Your task to perform on an android device: Show the shopping cart on walmart. Add usb-a to usb-b to the cart on walmart Image 0: 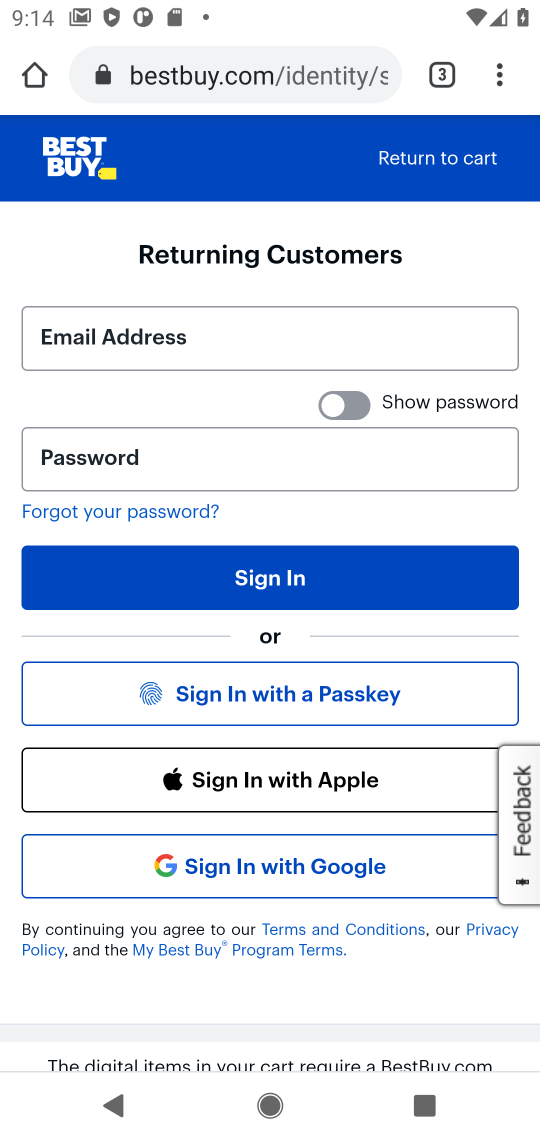
Step 0: click (252, 91)
Your task to perform on an android device: Show the shopping cart on walmart. Add usb-a to usb-b to the cart on walmart Image 1: 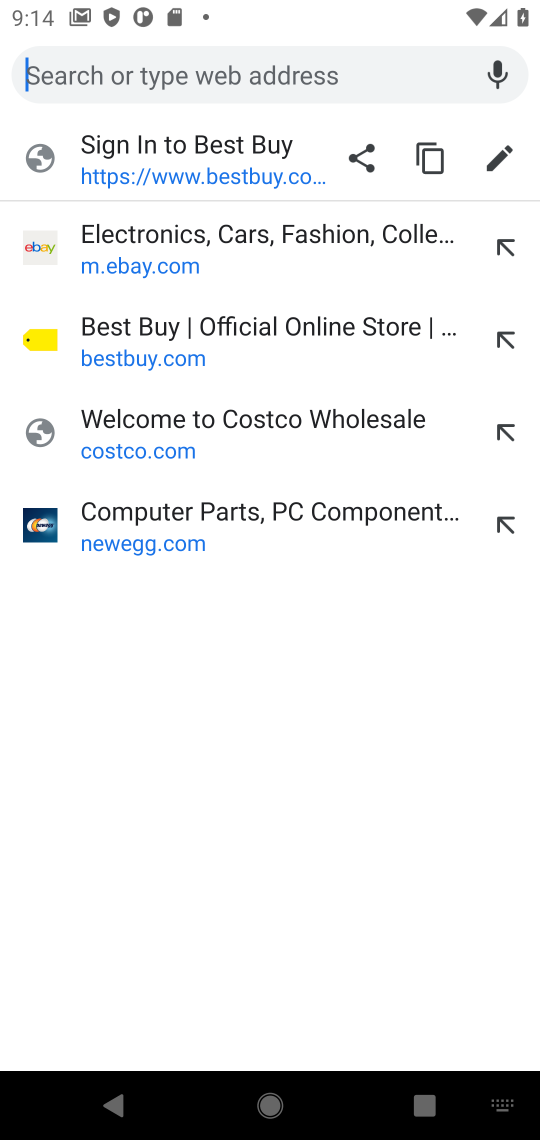
Step 1: type "walmart.com"
Your task to perform on an android device: Show the shopping cart on walmart. Add usb-a to usb-b to the cart on walmart Image 2: 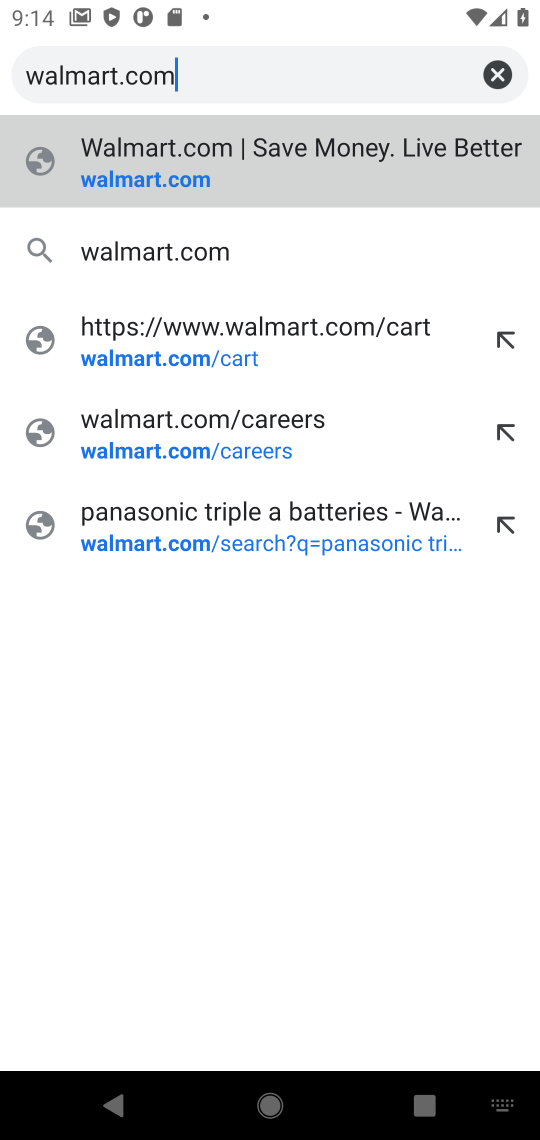
Step 2: click (134, 182)
Your task to perform on an android device: Show the shopping cart on walmart. Add usb-a to usb-b to the cart on walmart Image 3: 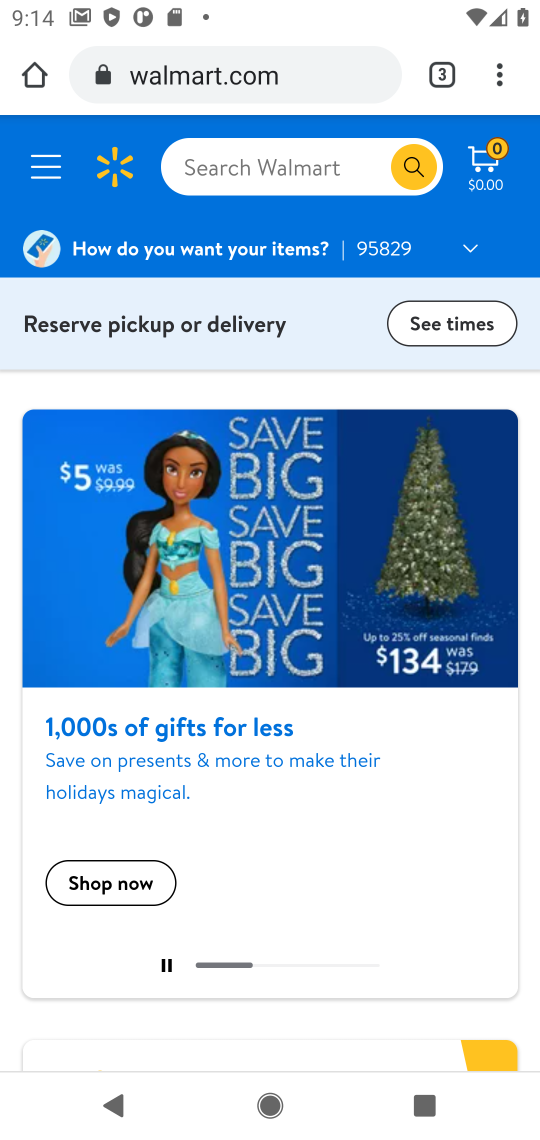
Step 3: click (469, 159)
Your task to perform on an android device: Show the shopping cart on walmart. Add usb-a to usb-b to the cart on walmart Image 4: 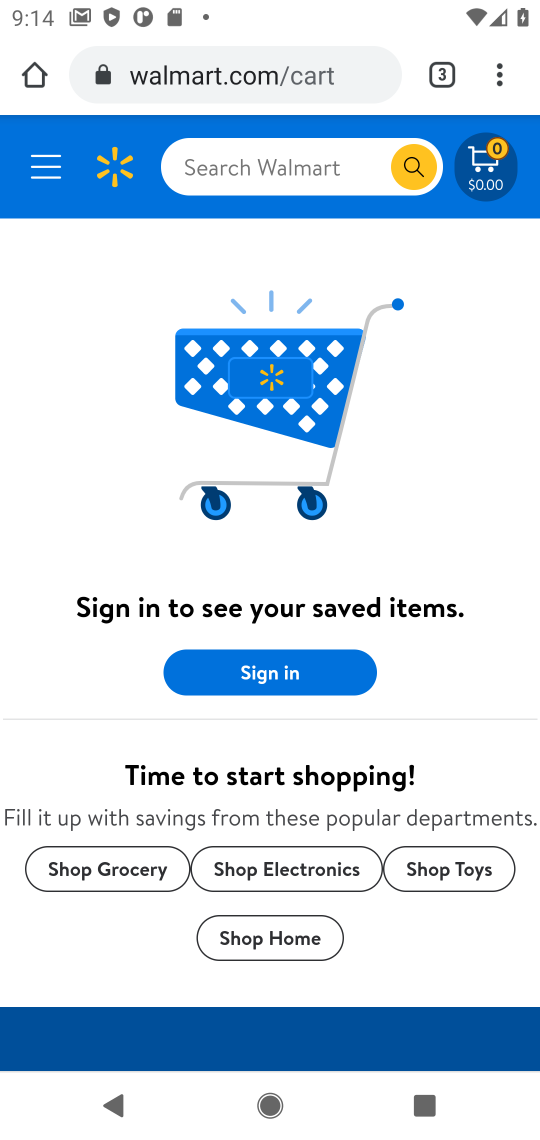
Step 4: click (228, 172)
Your task to perform on an android device: Show the shopping cart on walmart. Add usb-a to usb-b to the cart on walmart Image 5: 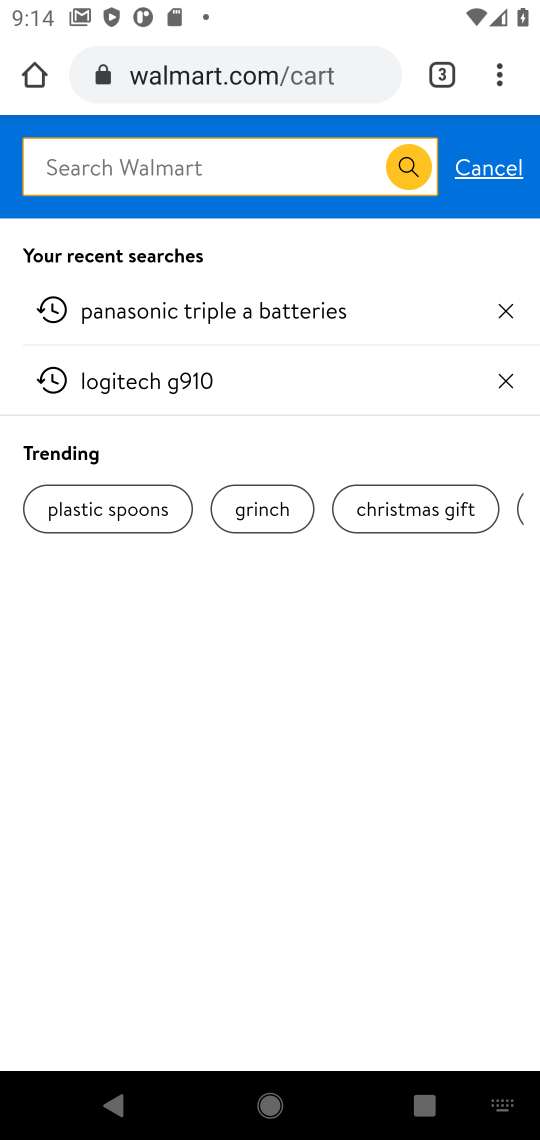
Step 5: type "usb-a to usb-b"
Your task to perform on an android device: Show the shopping cart on walmart. Add usb-a to usb-b to the cart on walmart Image 6: 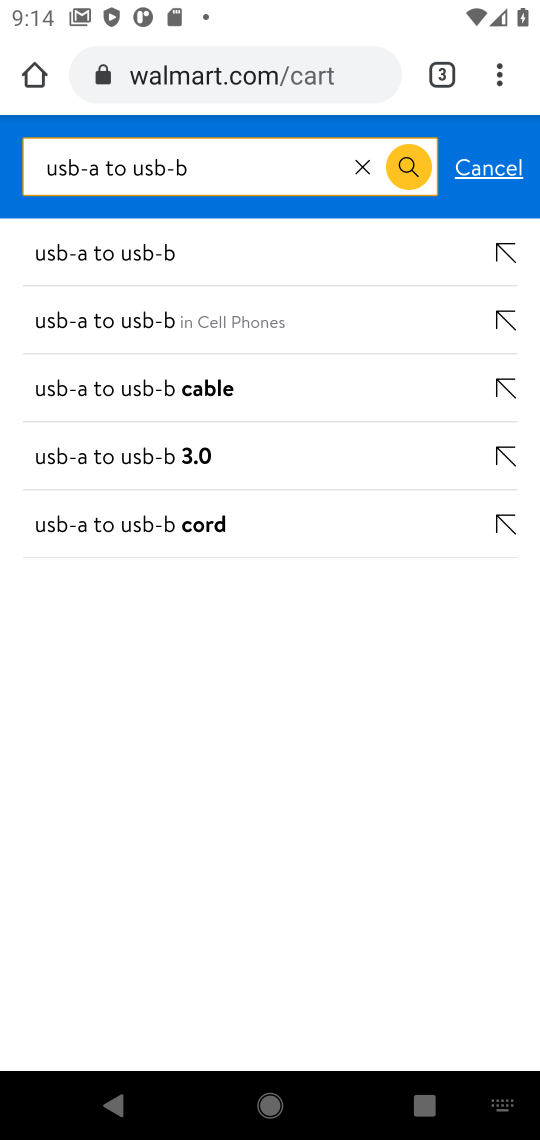
Step 6: click (135, 264)
Your task to perform on an android device: Show the shopping cart on walmart. Add usb-a to usb-b to the cart on walmart Image 7: 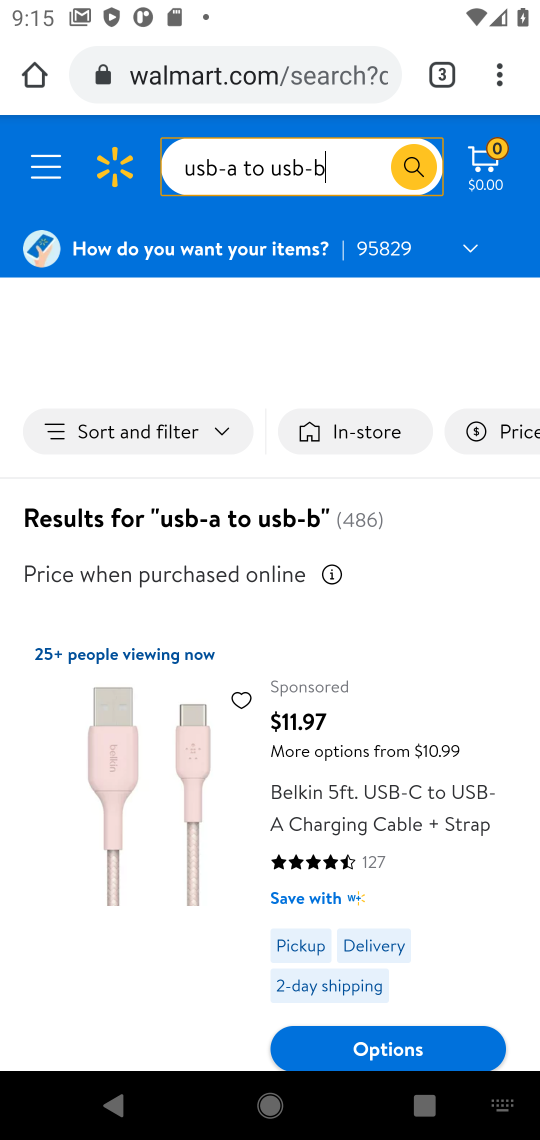
Step 7: drag from (233, 766) to (242, 535)
Your task to perform on an android device: Show the shopping cart on walmart. Add usb-a to usb-b to the cart on walmart Image 8: 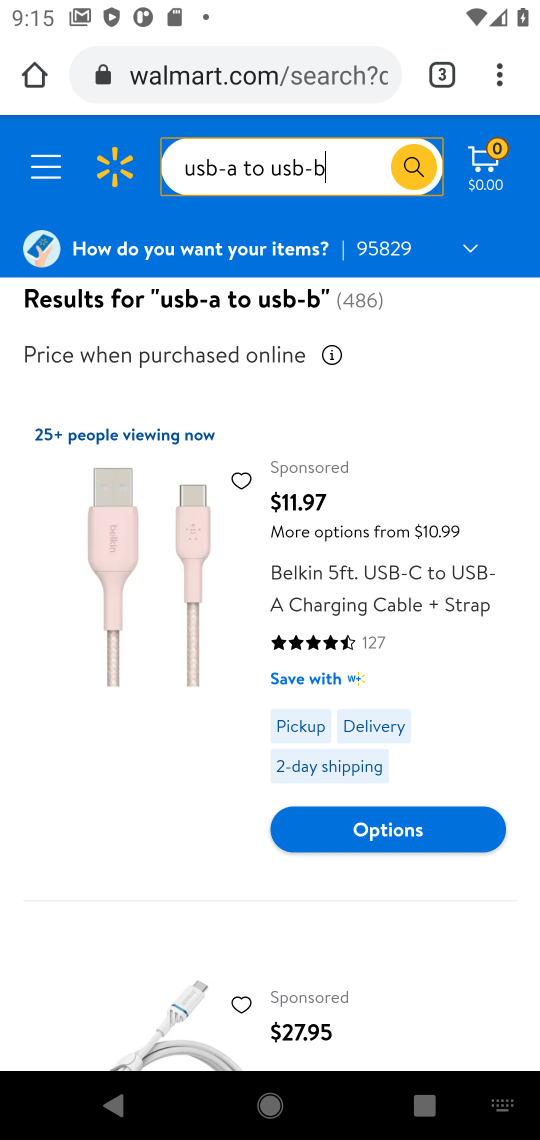
Step 8: drag from (218, 804) to (232, 443)
Your task to perform on an android device: Show the shopping cart on walmart. Add usb-a to usb-b to the cart on walmart Image 9: 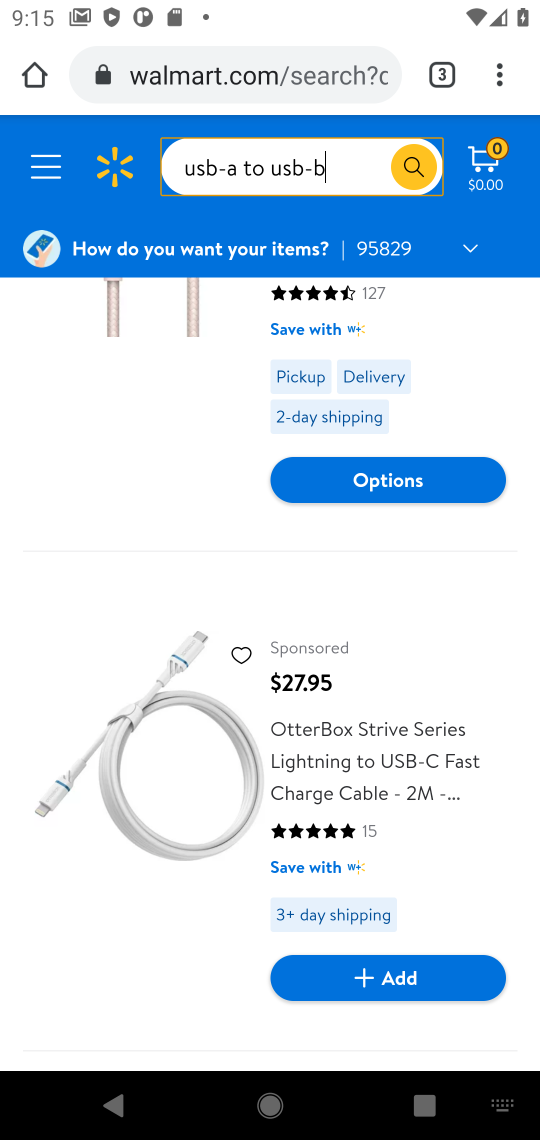
Step 9: drag from (187, 918) to (198, 378)
Your task to perform on an android device: Show the shopping cart on walmart. Add usb-a to usb-b to the cart on walmart Image 10: 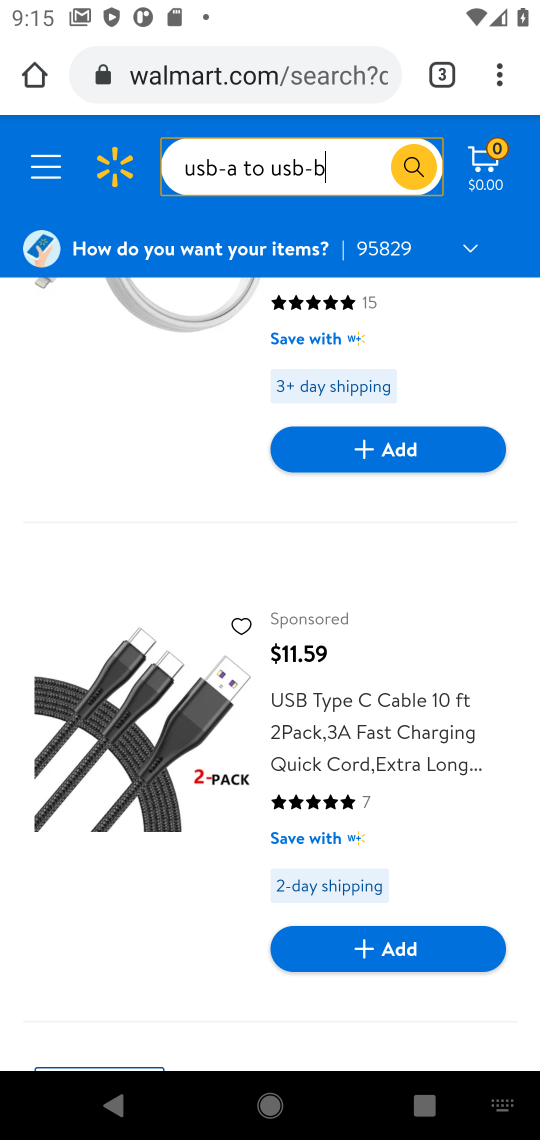
Step 10: drag from (168, 824) to (224, 395)
Your task to perform on an android device: Show the shopping cart on walmart. Add usb-a to usb-b to the cart on walmart Image 11: 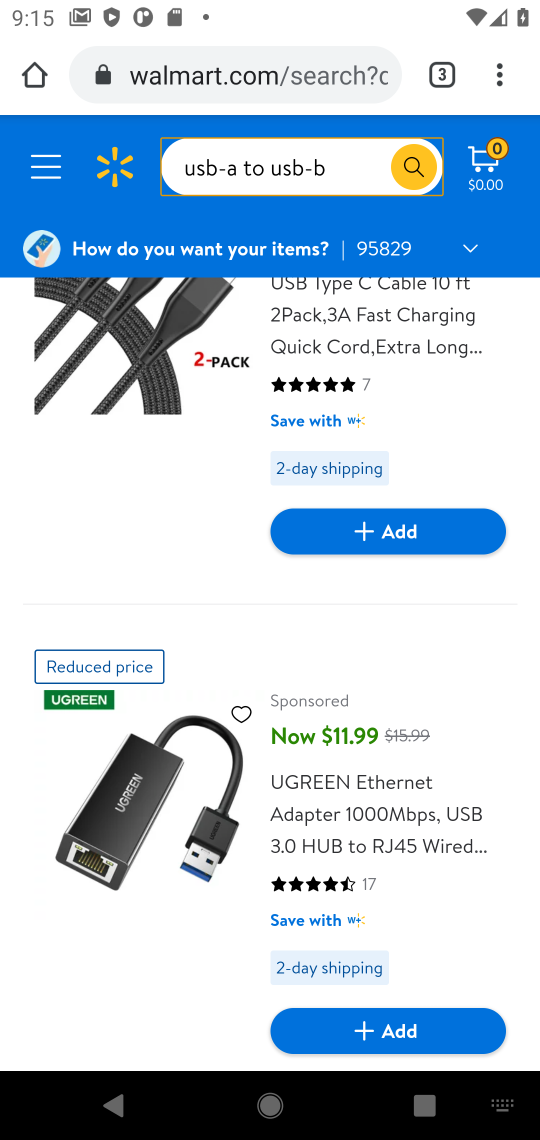
Step 11: drag from (169, 942) to (212, 480)
Your task to perform on an android device: Show the shopping cart on walmart. Add usb-a to usb-b to the cart on walmart Image 12: 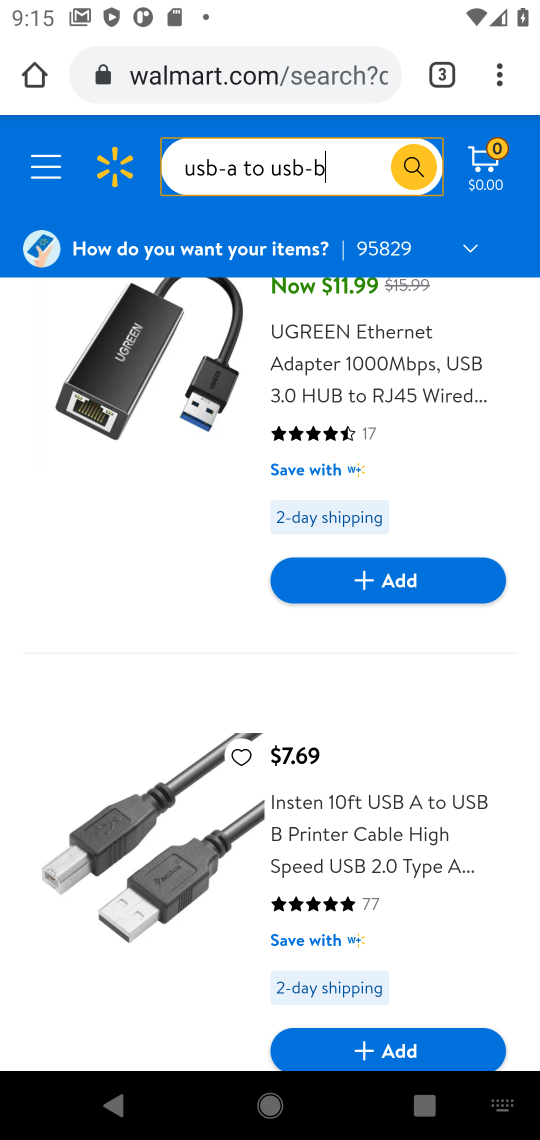
Step 12: drag from (327, 934) to (327, 768)
Your task to perform on an android device: Show the shopping cart on walmart. Add usb-a to usb-b to the cart on walmart Image 13: 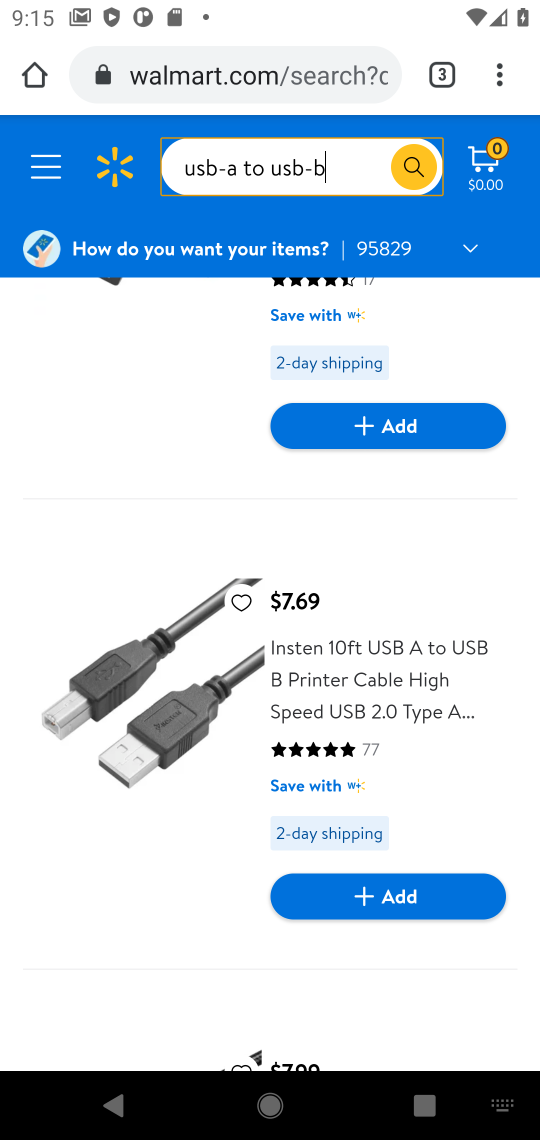
Step 13: click (367, 908)
Your task to perform on an android device: Show the shopping cart on walmart. Add usb-a to usb-b to the cart on walmart Image 14: 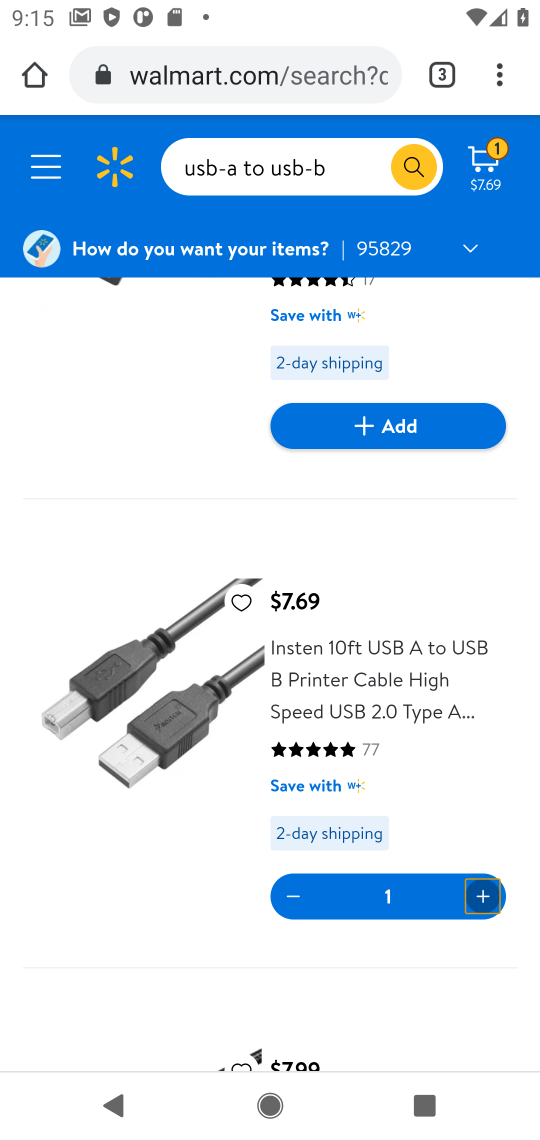
Step 14: task complete